Your task to perform on an android device: install app "Google Pay: Save, Pay, Manage" Image 0: 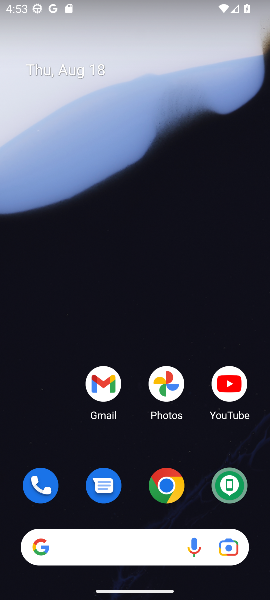
Step 0: drag from (54, 439) to (101, 38)
Your task to perform on an android device: install app "Google Pay: Save, Pay, Manage" Image 1: 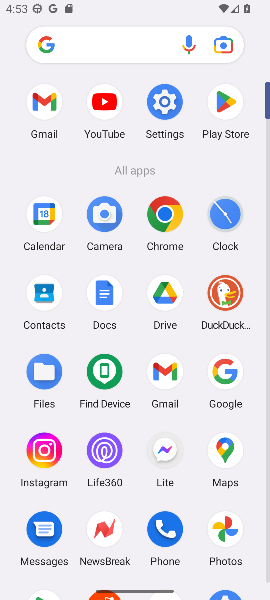
Step 1: click (220, 110)
Your task to perform on an android device: install app "Google Pay: Save, Pay, Manage" Image 2: 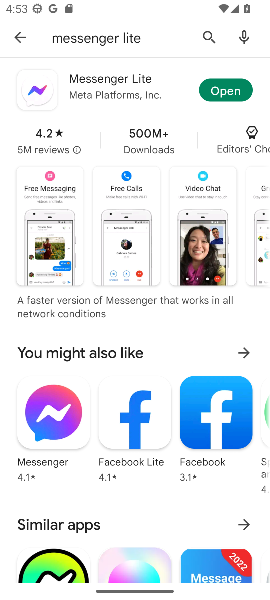
Step 2: click (203, 31)
Your task to perform on an android device: install app "Google Pay: Save, Pay, Manage" Image 3: 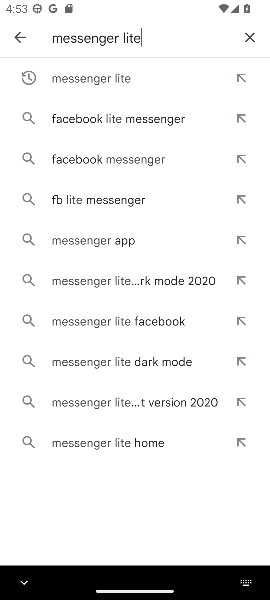
Step 3: click (250, 35)
Your task to perform on an android device: install app "Google Pay: Save, Pay, Manage" Image 4: 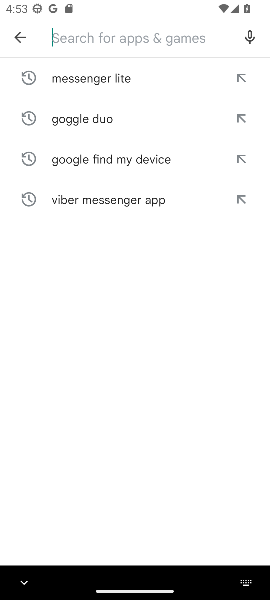
Step 4: click (85, 32)
Your task to perform on an android device: install app "Google Pay: Save, Pay, Manage" Image 5: 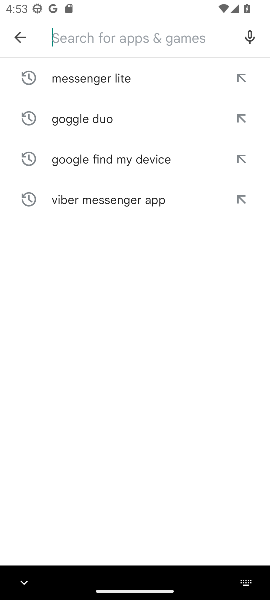
Step 5: type "Google Pay"
Your task to perform on an android device: install app "Google Pay: Save, Pay, Manage" Image 6: 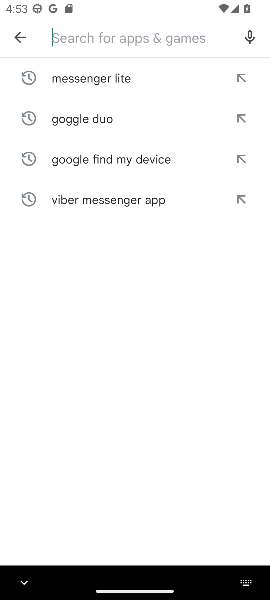
Step 6: click (125, 371)
Your task to perform on an android device: install app "Google Pay: Save, Pay, Manage" Image 7: 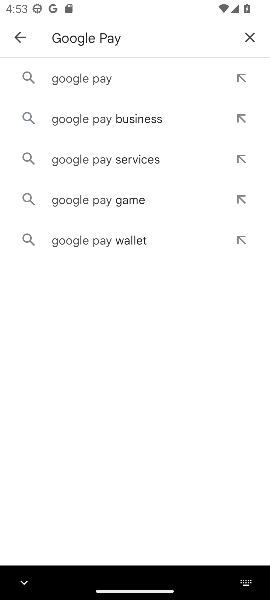
Step 7: click (87, 87)
Your task to perform on an android device: install app "Google Pay: Save, Pay, Manage" Image 8: 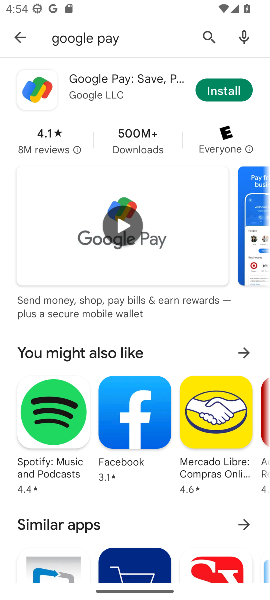
Step 8: click (221, 87)
Your task to perform on an android device: install app "Google Pay: Save, Pay, Manage" Image 9: 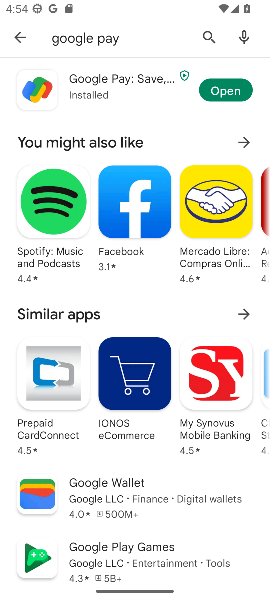
Step 9: click (219, 93)
Your task to perform on an android device: install app "Google Pay: Save, Pay, Manage" Image 10: 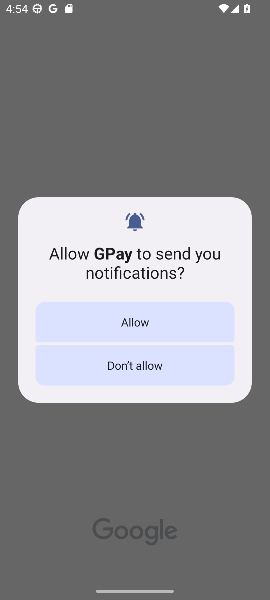
Step 10: task complete